Your task to perform on an android device: open app "PlayWell" Image 0: 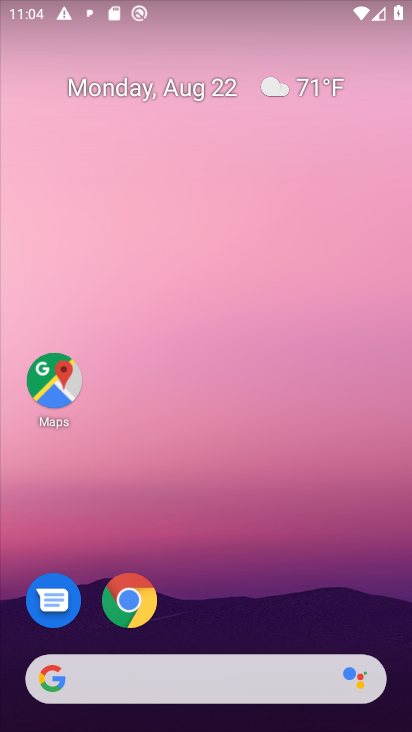
Step 0: drag from (230, 589) to (221, 158)
Your task to perform on an android device: open app "PlayWell" Image 1: 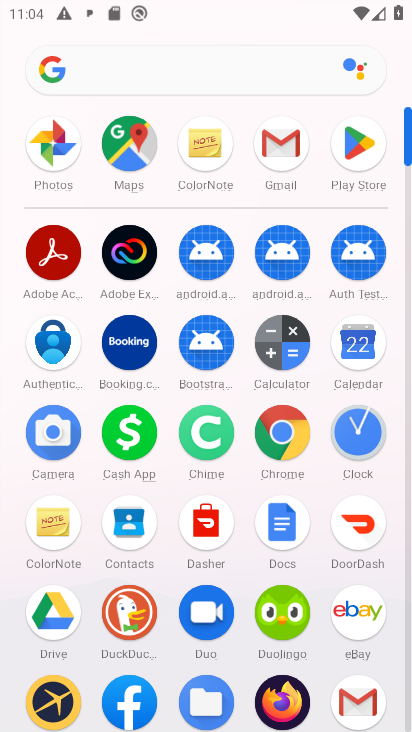
Step 1: click (352, 151)
Your task to perform on an android device: open app "PlayWell" Image 2: 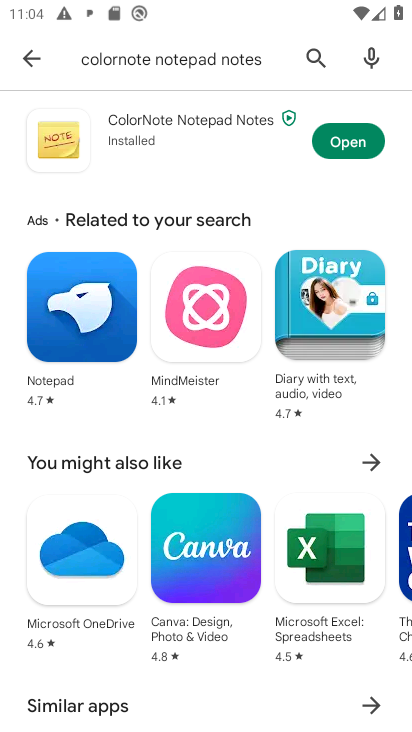
Step 2: click (322, 53)
Your task to perform on an android device: open app "PlayWell" Image 3: 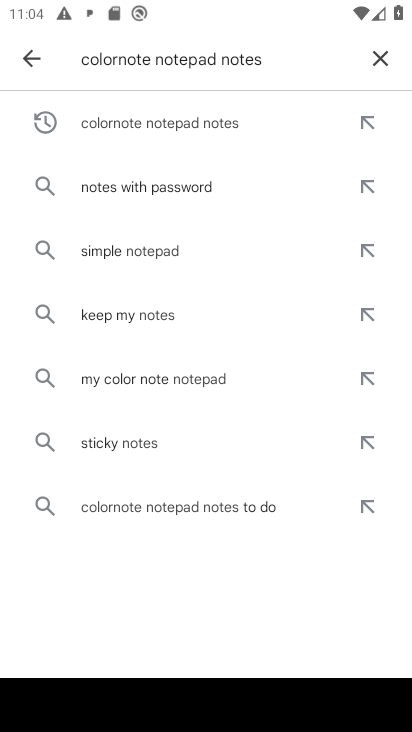
Step 3: click (369, 59)
Your task to perform on an android device: open app "PlayWell" Image 4: 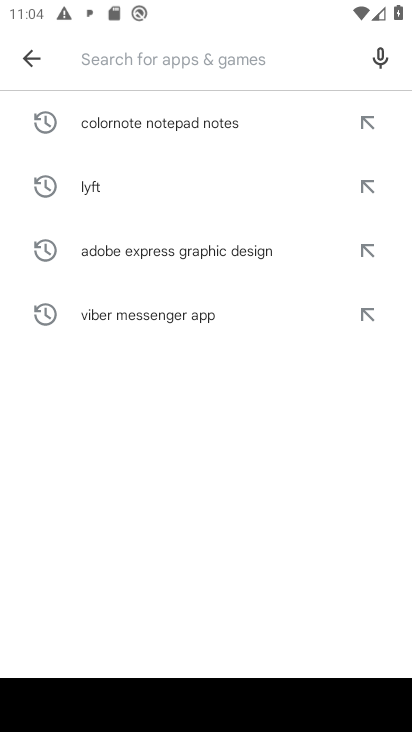
Step 4: type "PlayWell"
Your task to perform on an android device: open app "PlayWell" Image 5: 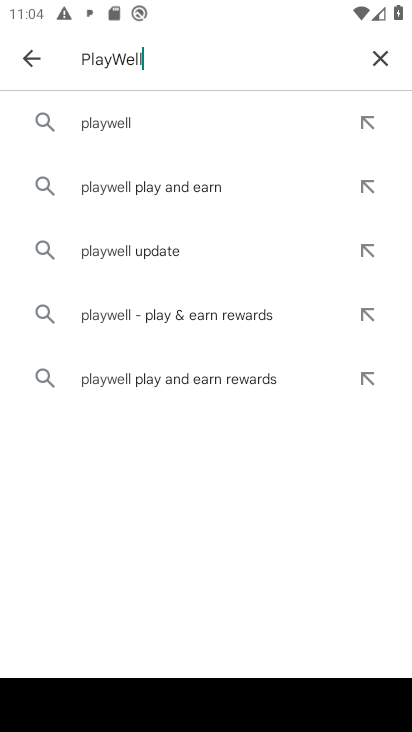
Step 5: type ""
Your task to perform on an android device: open app "PlayWell" Image 6: 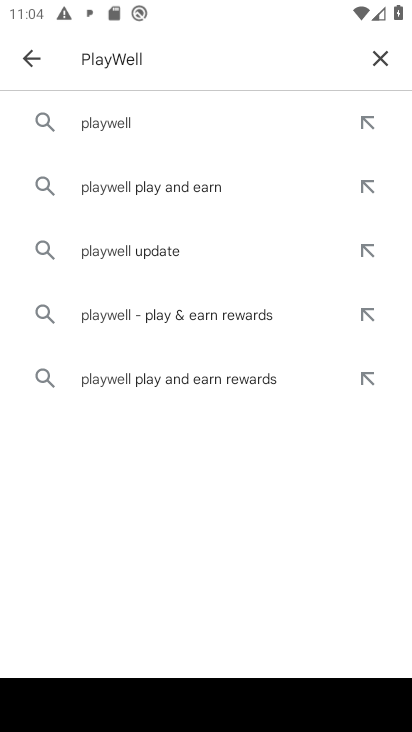
Step 6: click (120, 123)
Your task to perform on an android device: open app "PlayWell" Image 7: 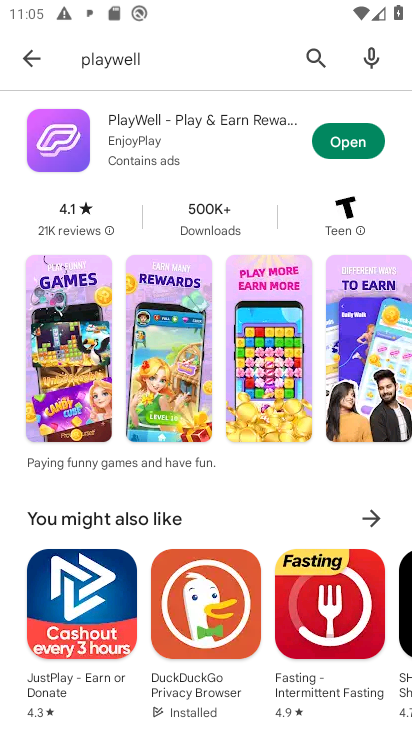
Step 7: click (369, 118)
Your task to perform on an android device: open app "PlayWell" Image 8: 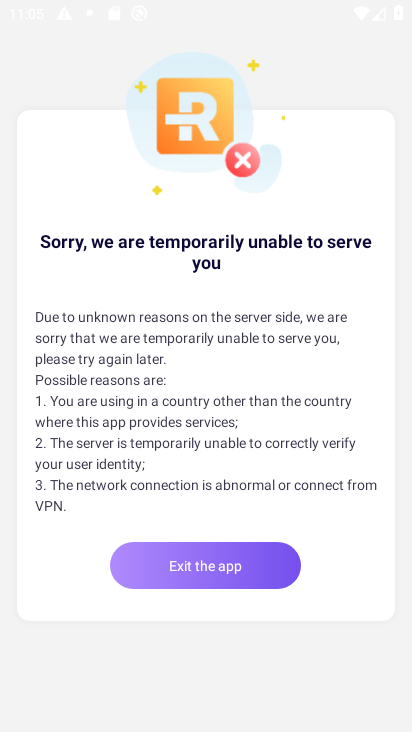
Step 8: task complete